Your task to perform on an android device: Open Yahoo.com Image 0: 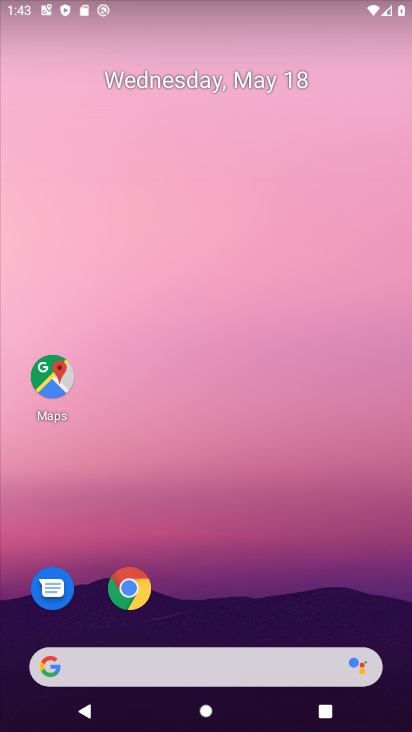
Step 0: drag from (340, 602) to (357, 151)
Your task to perform on an android device: Open Yahoo.com Image 1: 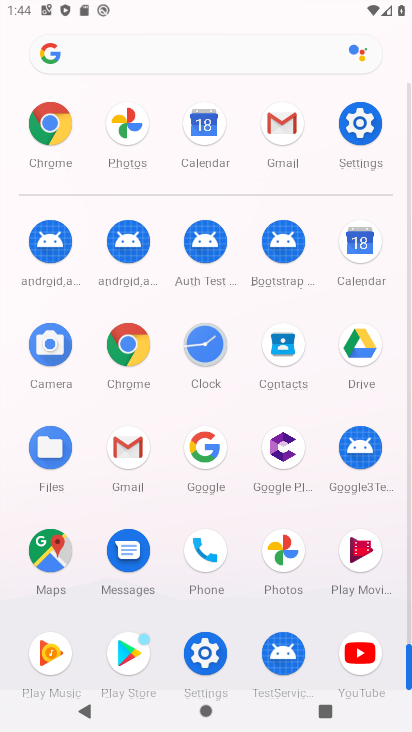
Step 1: click (121, 343)
Your task to perform on an android device: Open Yahoo.com Image 2: 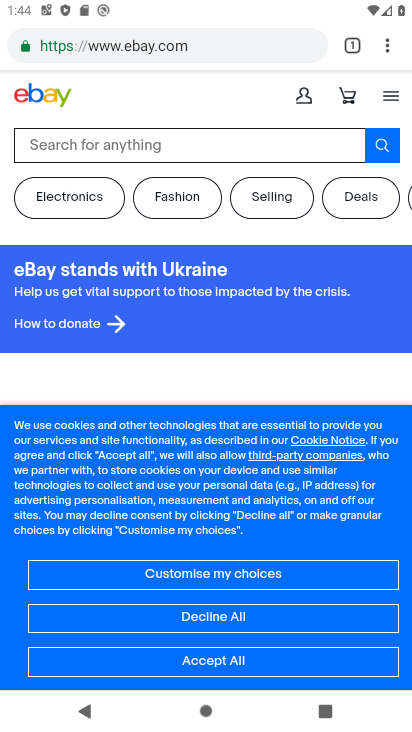
Step 2: press back button
Your task to perform on an android device: Open Yahoo.com Image 3: 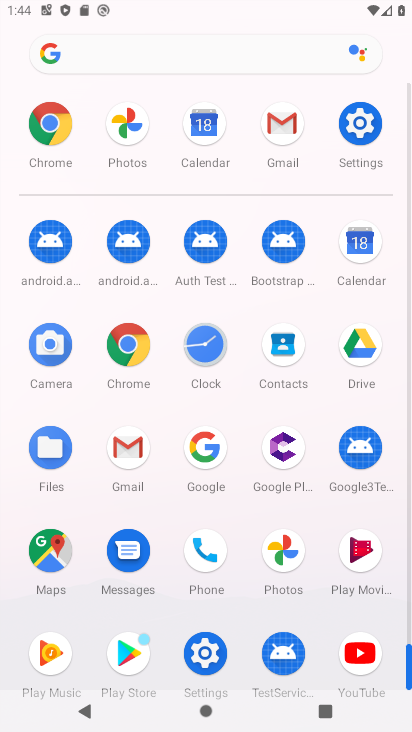
Step 3: click (122, 354)
Your task to perform on an android device: Open Yahoo.com Image 4: 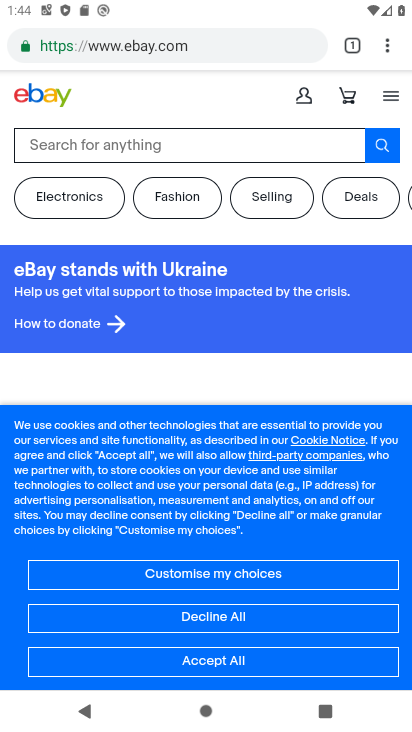
Step 4: click (207, 44)
Your task to perform on an android device: Open Yahoo.com Image 5: 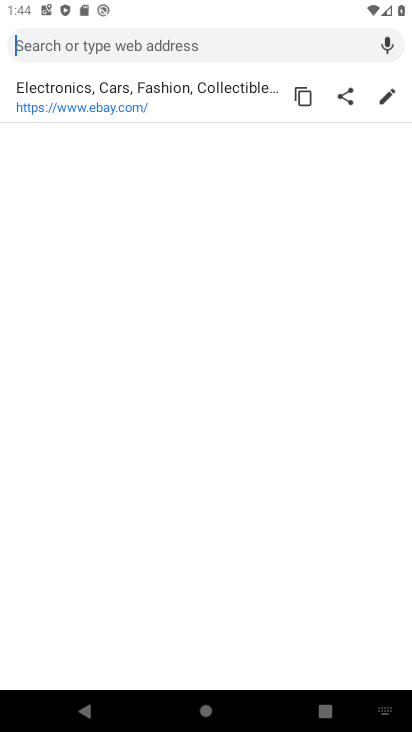
Step 5: type "yahoo.com"
Your task to perform on an android device: Open Yahoo.com Image 6: 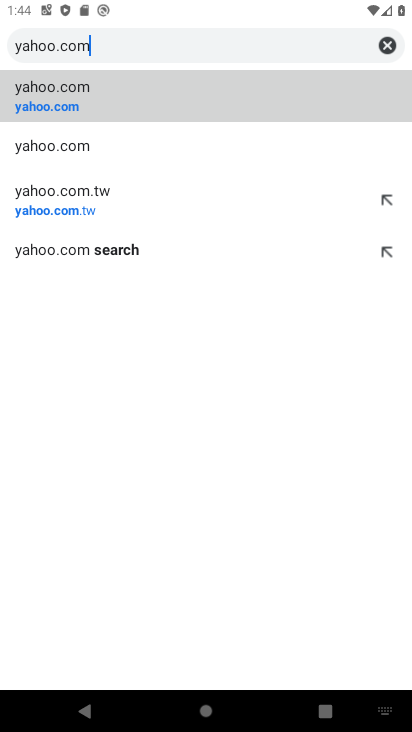
Step 6: click (99, 115)
Your task to perform on an android device: Open Yahoo.com Image 7: 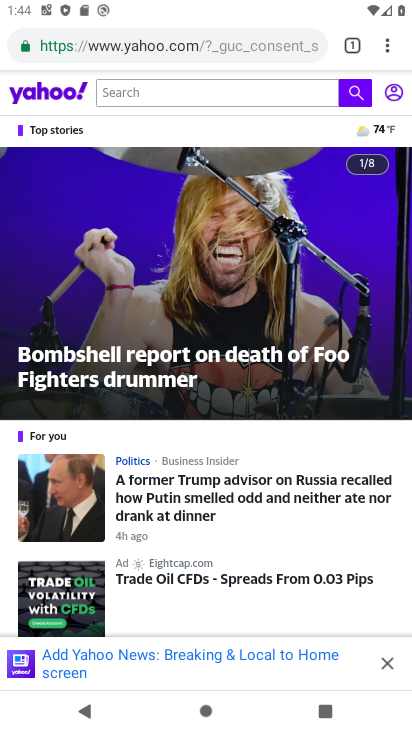
Step 7: task complete